Your task to perform on an android device: Is it going to rain tomorrow? Image 0: 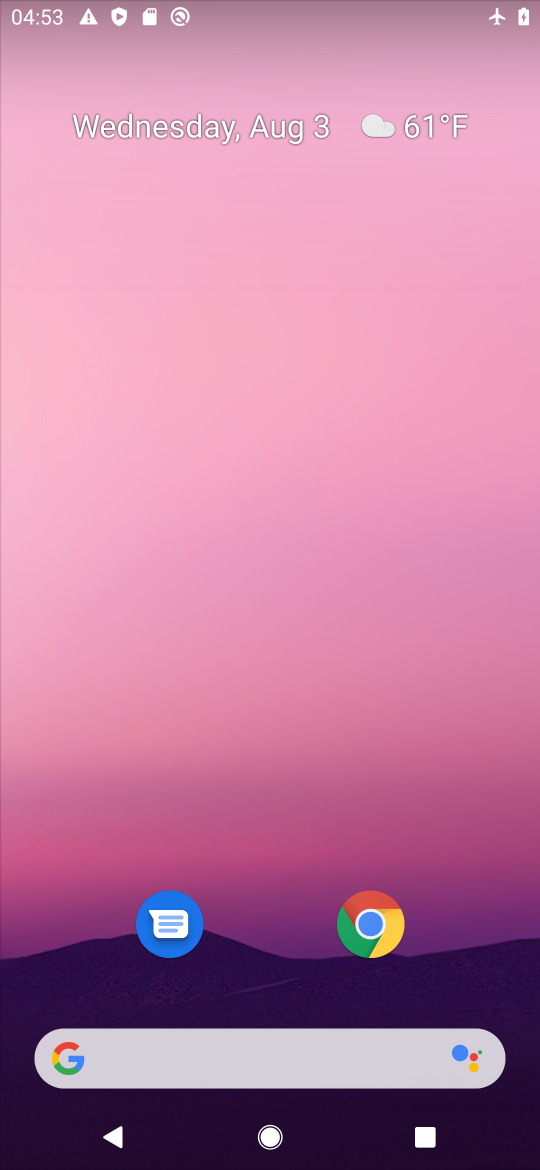
Step 0: drag from (273, 943) to (239, 338)
Your task to perform on an android device: Is it going to rain tomorrow? Image 1: 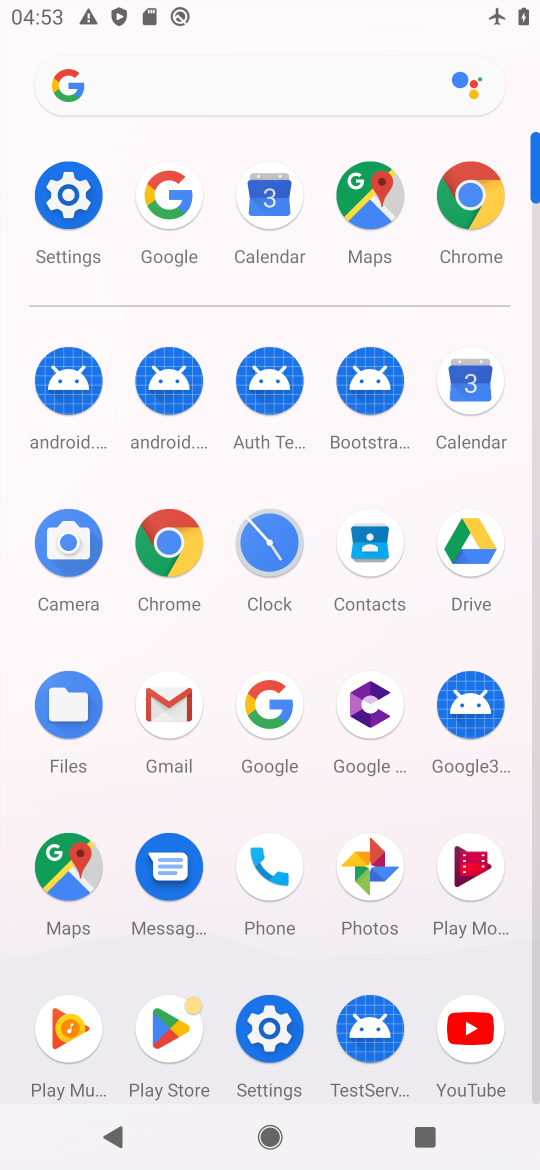
Step 1: click (279, 700)
Your task to perform on an android device: Is it going to rain tomorrow? Image 2: 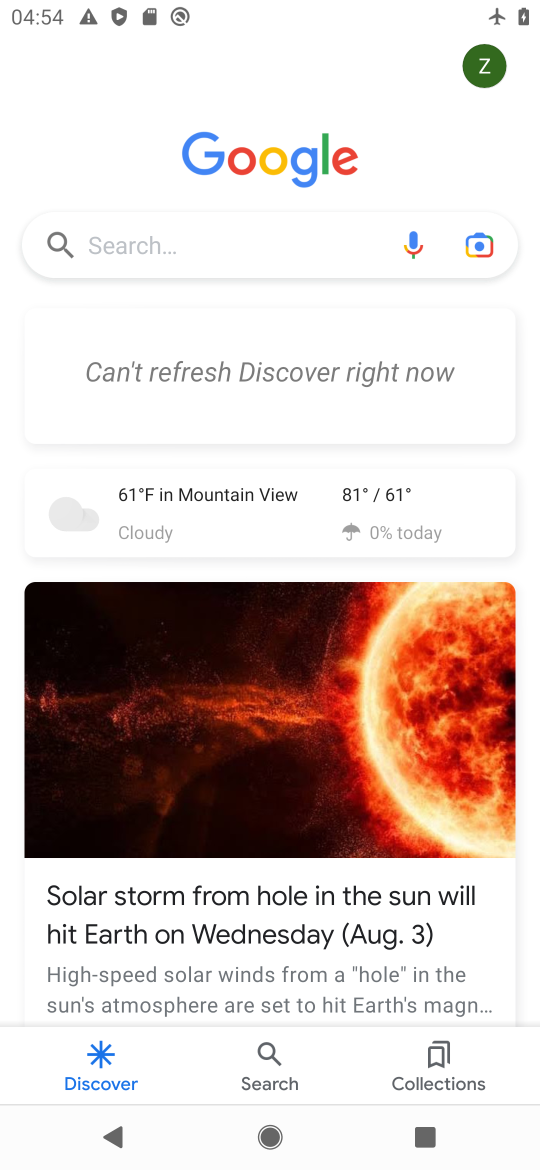
Step 2: click (226, 229)
Your task to perform on an android device: Is it going to rain tomorrow? Image 3: 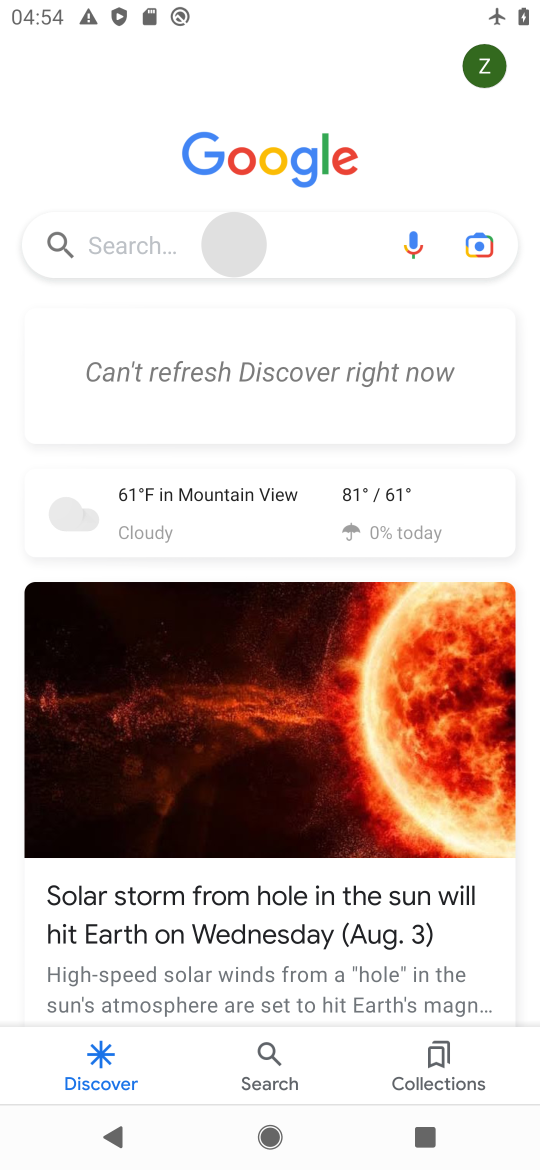
Step 3: click (216, 508)
Your task to perform on an android device: Is it going to rain tomorrow? Image 4: 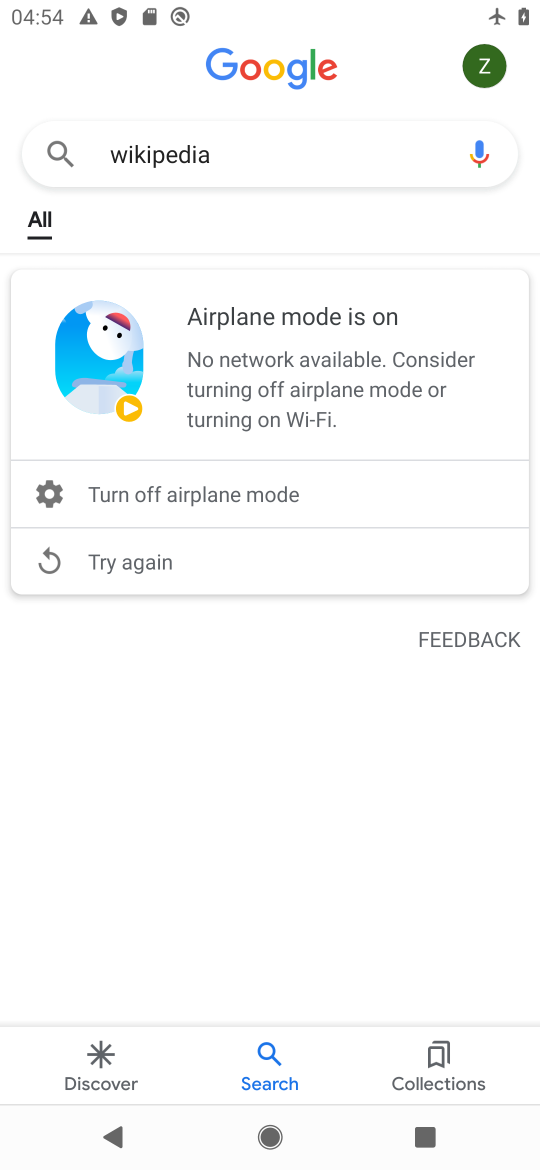
Step 4: task complete